Your task to perform on an android device: turn off location Image 0: 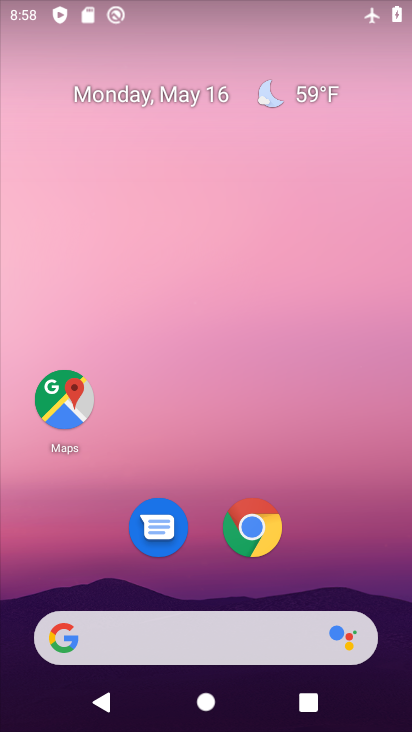
Step 0: click (338, 166)
Your task to perform on an android device: turn off location Image 1: 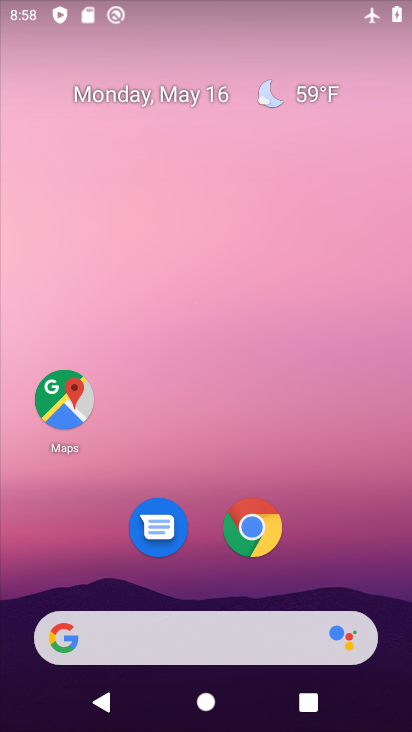
Step 1: drag from (376, 595) to (360, 164)
Your task to perform on an android device: turn off location Image 2: 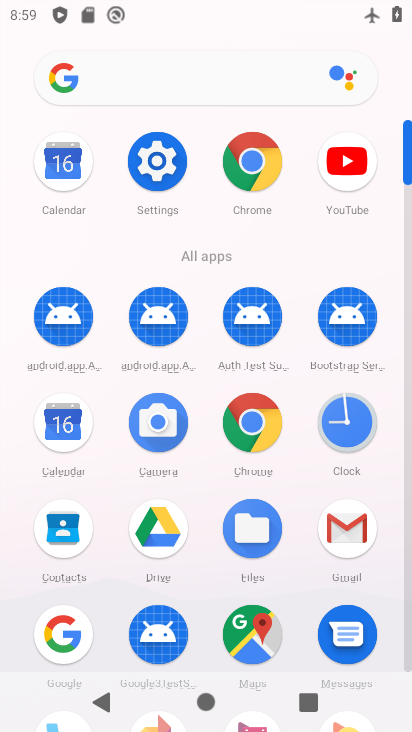
Step 2: click (160, 160)
Your task to perform on an android device: turn off location Image 3: 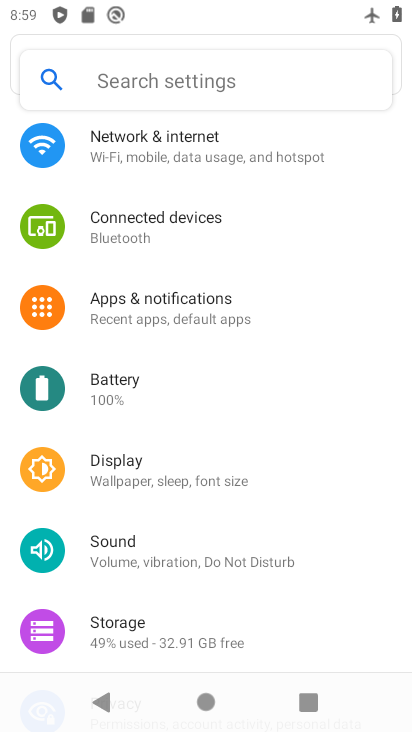
Step 3: drag from (344, 568) to (325, 274)
Your task to perform on an android device: turn off location Image 4: 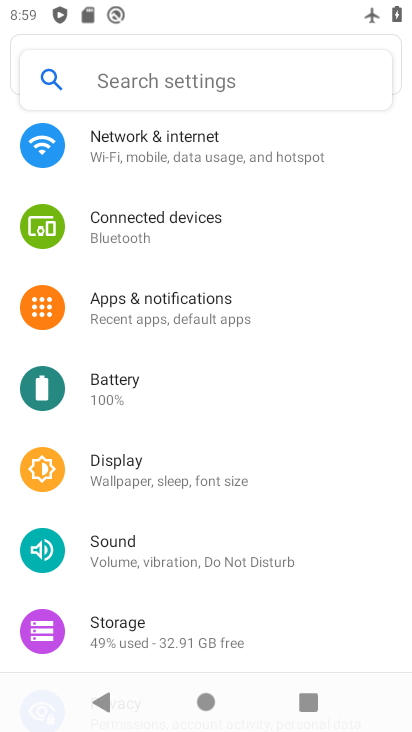
Step 4: drag from (362, 636) to (328, 429)
Your task to perform on an android device: turn off location Image 5: 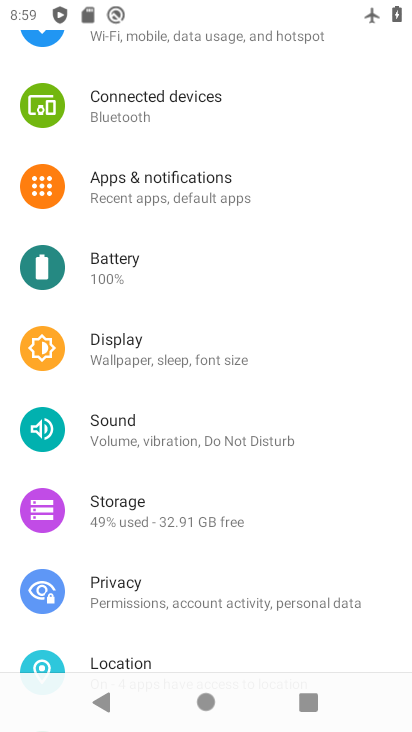
Step 5: click (120, 654)
Your task to perform on an android device: turn off location Image 6: 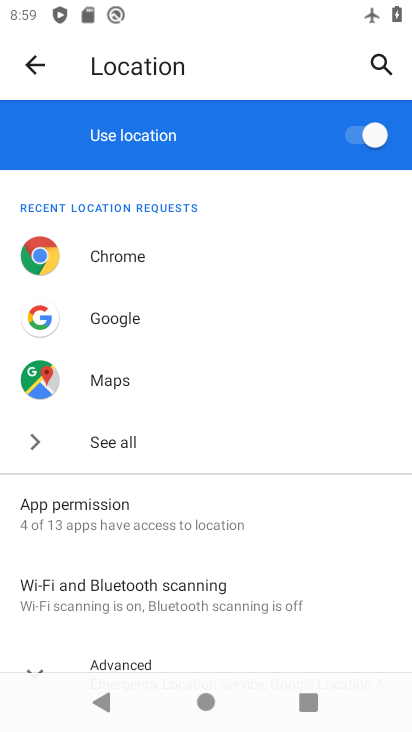
Step 6: click (359, 136)
Your task to perform on an android device: turn off location Image 7: 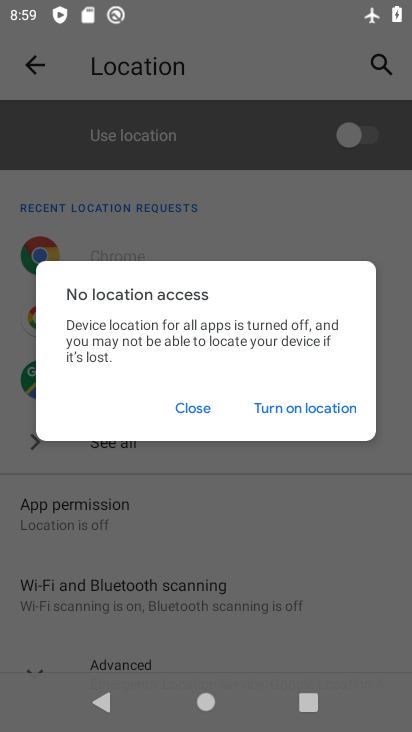
Step 7: click (191, 401)
Your task to perform on an android device: turn off location Image 8: 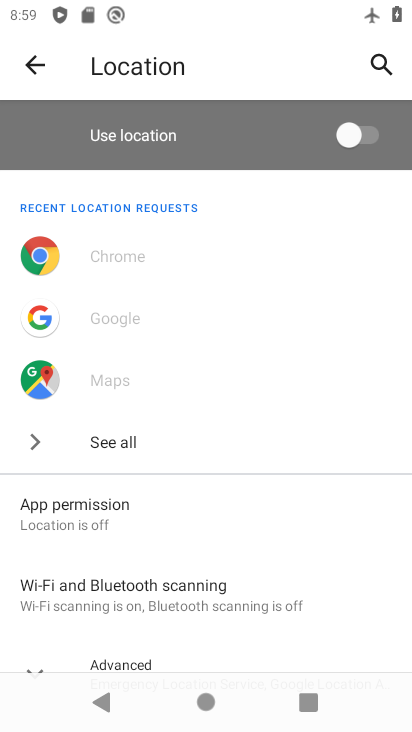
Step 8: task complete